Your task to perform on an android device: When is my next appointment? Image 0: 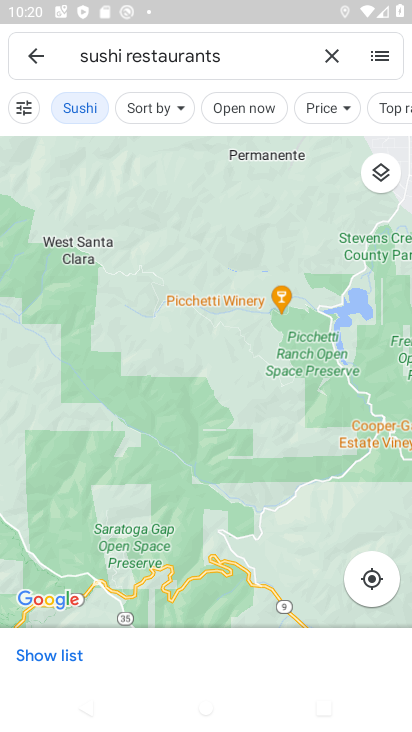
Step 0: press home button
Your task to perform on an android device: When is my next appointment? Image 1: 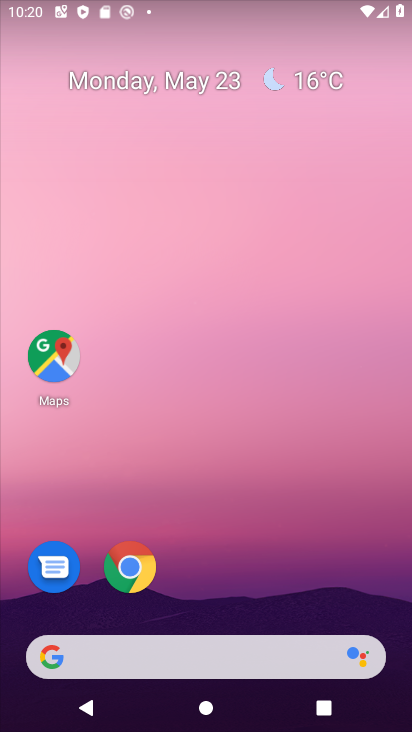
Step 1: drag from (215, 549) to (281, 43)
Your task to perform on an android device: When is my next appointment? Image 2: 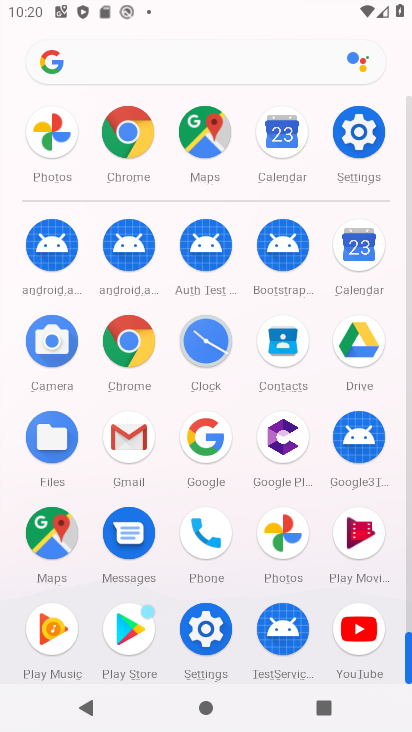
Step 2: click (366, 236)
Your task to perform on an android device: When is my next appointment? Image 3: 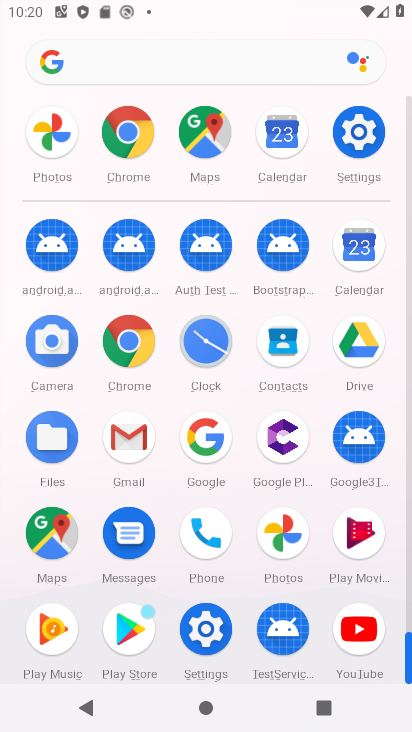
Step 3: click (365, 236)
Your task to perform on an android device: When is my next appointment? Image 4: 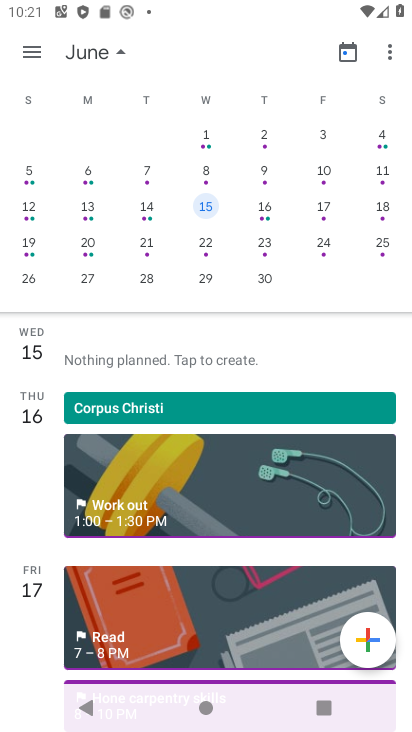
Step 4: drag from (37, 212) to (410, 207)
Your task to perform on an android device: When is my next appointment? Image 5: 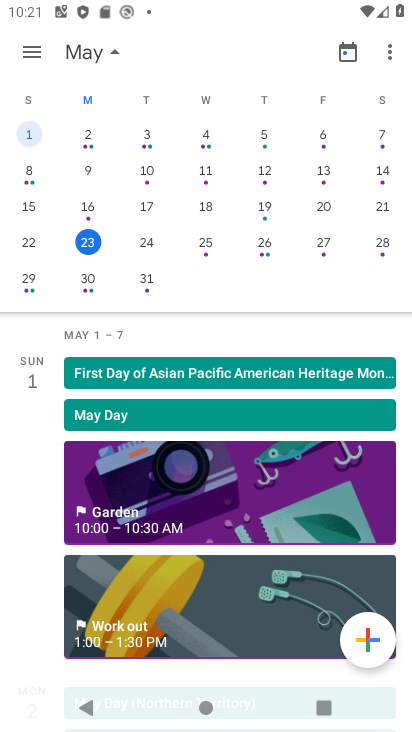
Step 5: click (88, 253)
Your task to perform on an android device: When is my next appointment? Image 6: 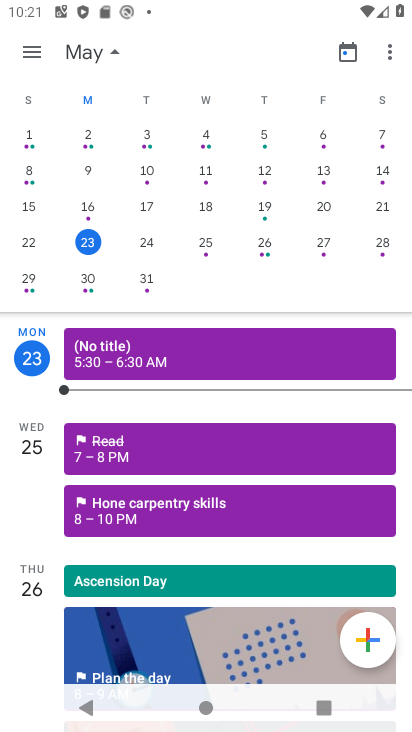
Step 6: task complete